Your task to perform on an android device: turn smart compose on in the gmail app Image 0: 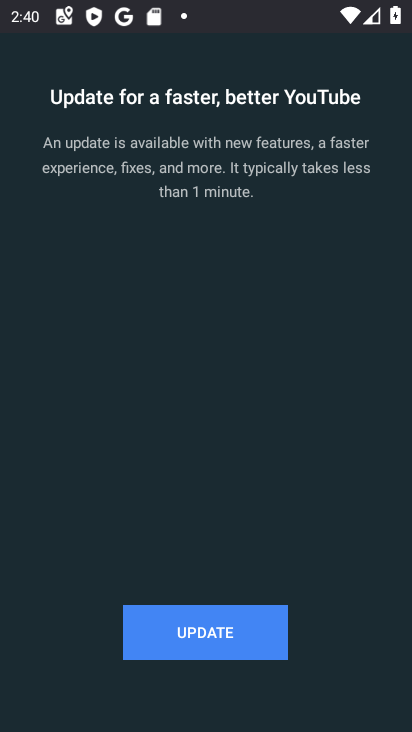
Step 0: drag from (350, 602) to (335, 251)
Your task to perform on an android device: turn smart compose on in the gmail app Image 1: 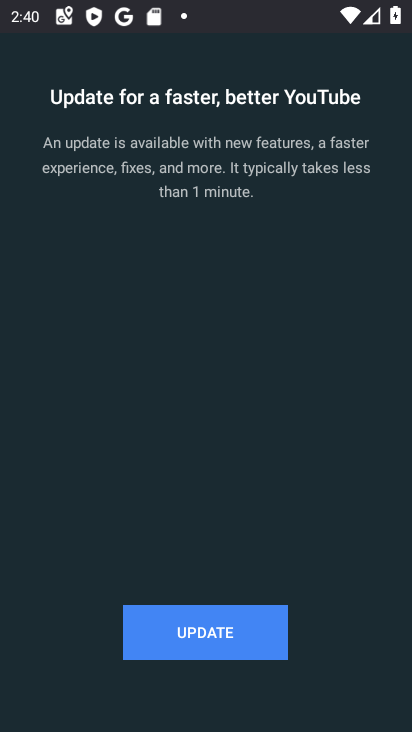
Step 1: press home button
Your task to perform on an android device: turn smart compose on in the gmail app Image 2: 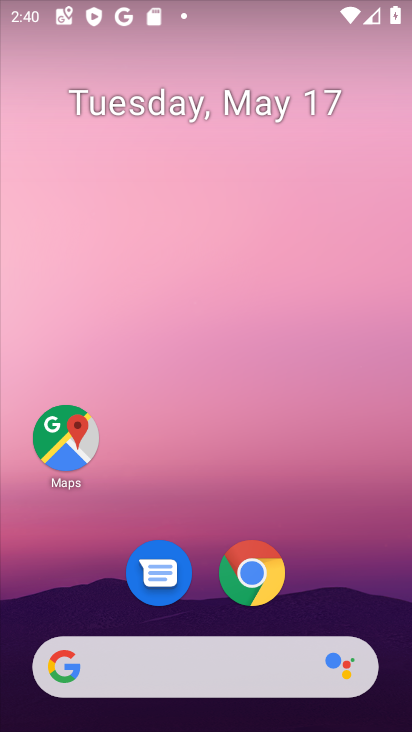
Step 2: drag from (336, 574) to (347, 187)
Your task to perform on an android device: turn smart compose on in the gmail app Image 3: 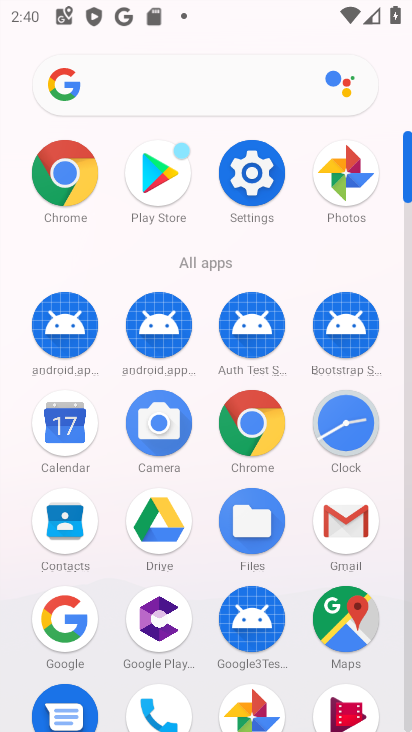
Step 3: click (334, 515)
Your task to perform on an android device: turn smart compose on in the gmail app Image 4: 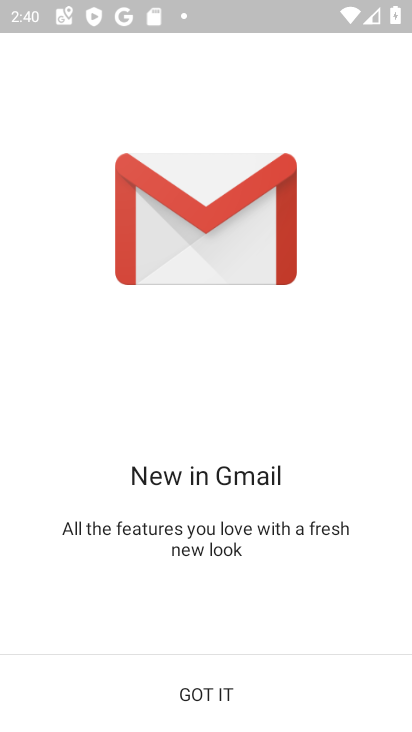
Step 4: click (221, 693)
Your task to perform on an android device: turn smart compose on in the gmail app Image 5: 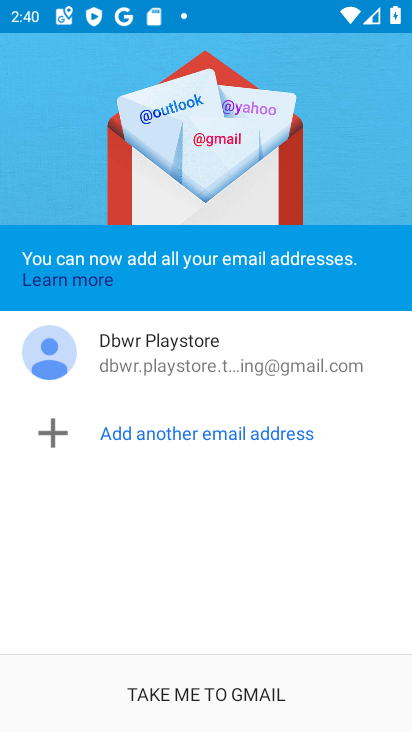
Step 5: click (234, 682)
Your task to perform on an android device: turn smart compose on in the gmail app Image 6: 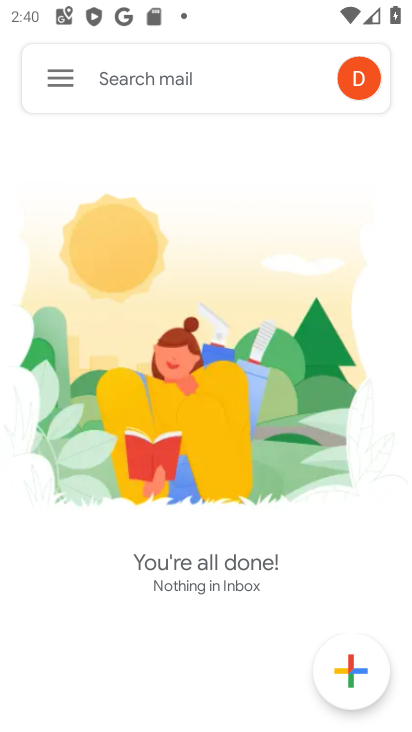
Step 6: click (55, 90)
Your task to perform on an android device: turn smart compose on in the gmail app Image 7: 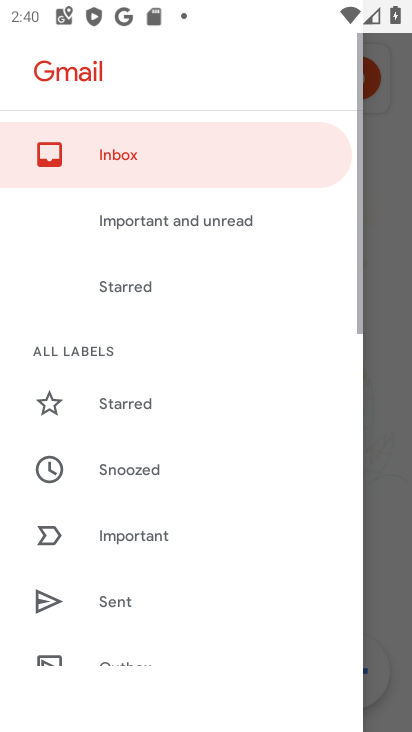
Step 7: drag from (189, 627) to (212, 267)
Your task to perform on an android device: turn smart compose on in the gmail app Image 8: 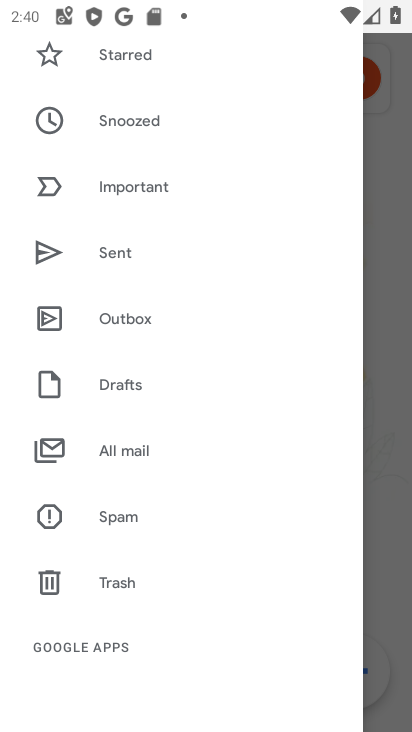
Step 8: drag from (202, 633) to (207, 249)
Your task to perform on an android device: turn smart compose on in the gmail app Image 9: 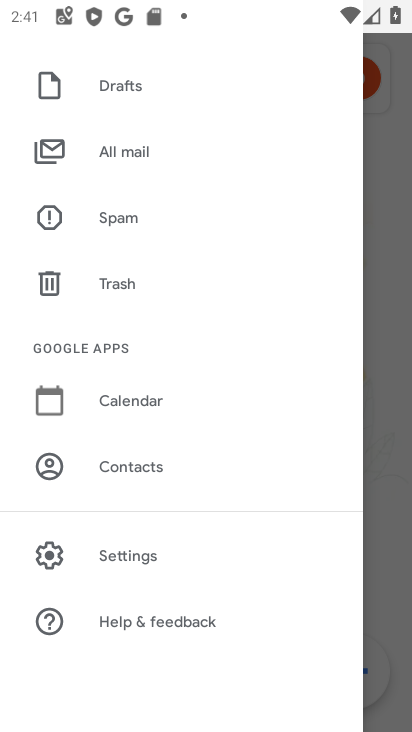
Step 9: click (160, 555)
Your task to perform on an android device: turn smart compose on in the gmail app Image 10: 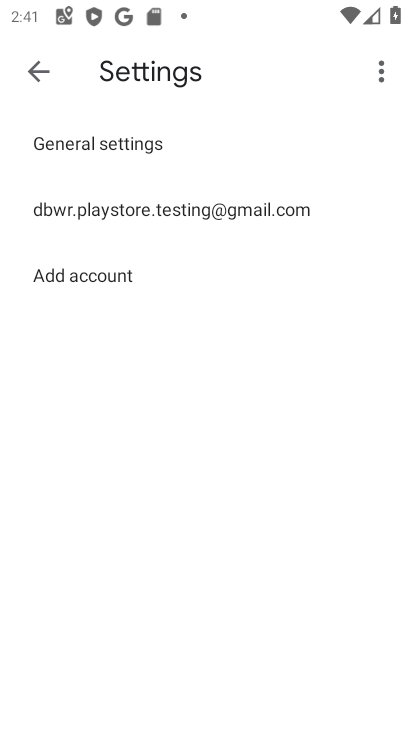
Step 10: click (205, 204)
Your task to perform on an android device: turn smart compose on in the gmail app Image 11: 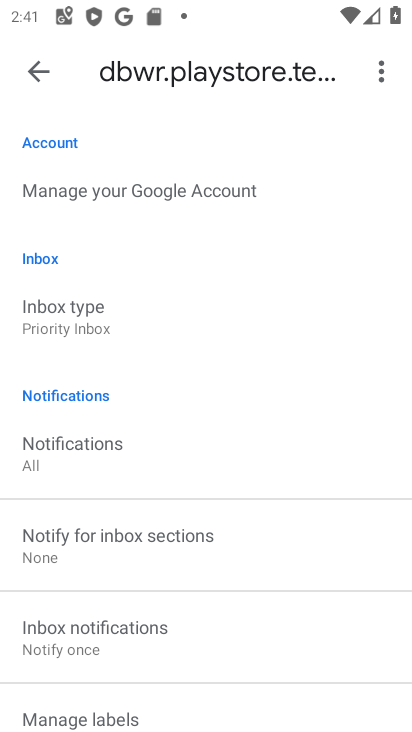
Step 11: task complete